Your task to perform on an android device: Go to location settings Image 0: 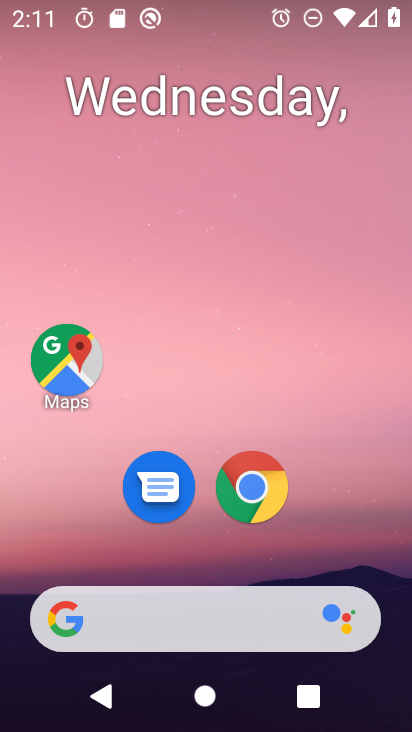
Step 0: drag from (158, 563) to (304, 19)
Your task to perform on an android device: Go to location settings Image 1: 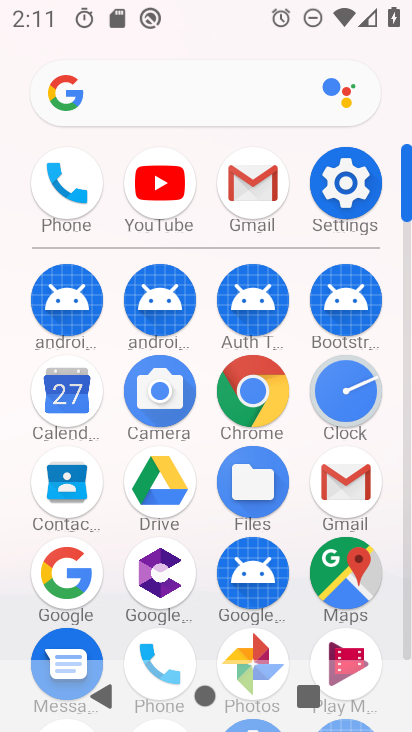
Step 1: click (347, 187)
Your task to perform on an android device: Go to location settings Image 2: 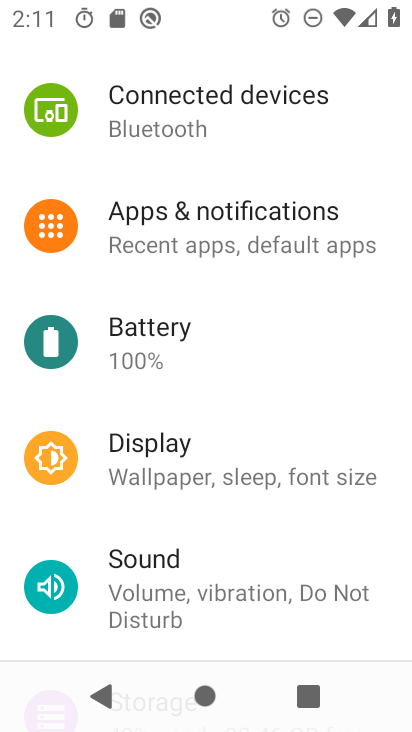
Step 2: drag from (307, 228) to (362, 118)
Your task to perform on an android device: Go to location settings Image 3: 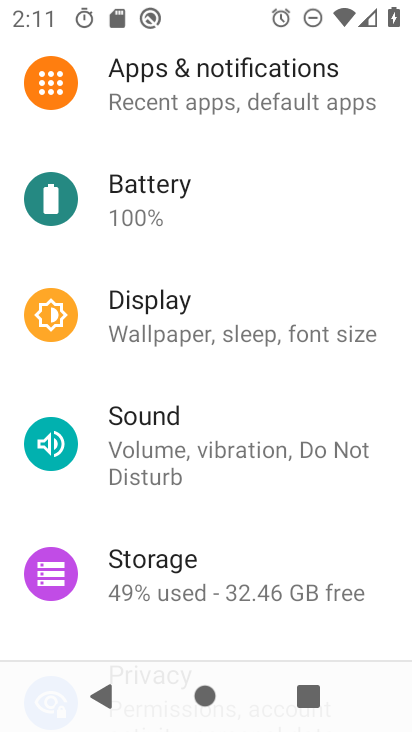
Step 3: drag from (200, 601) to (349, 56)
Your task to perform on an android device: Go to location settings Image 4: 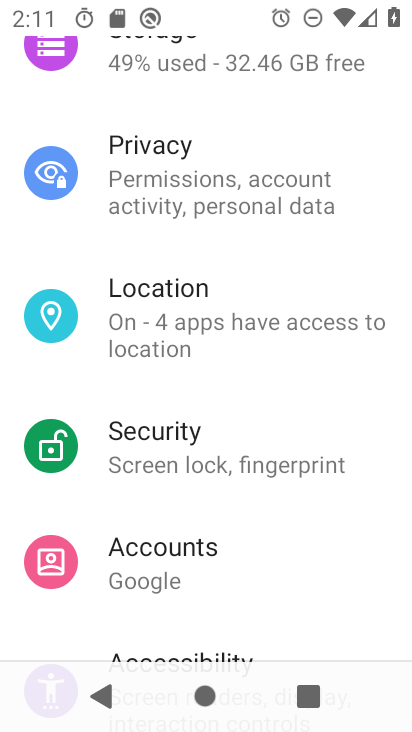
Step 4: click (187, 325)
Your task to perform on an android device: Go to location settings Image 5: 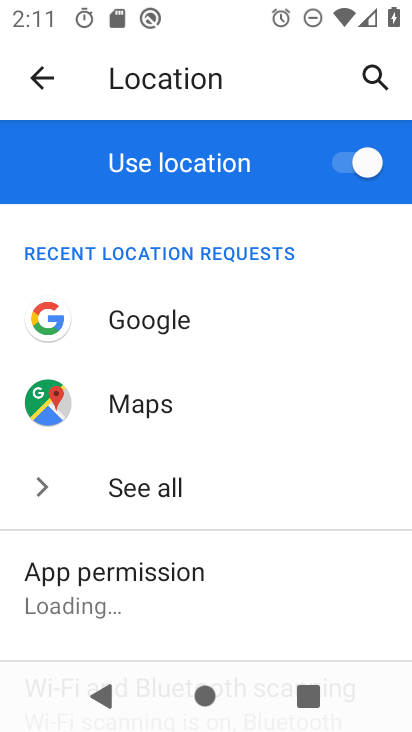
Step 5: task complete